Your task to perform on an android device: Is it going to rain tomorrow? Image 0: 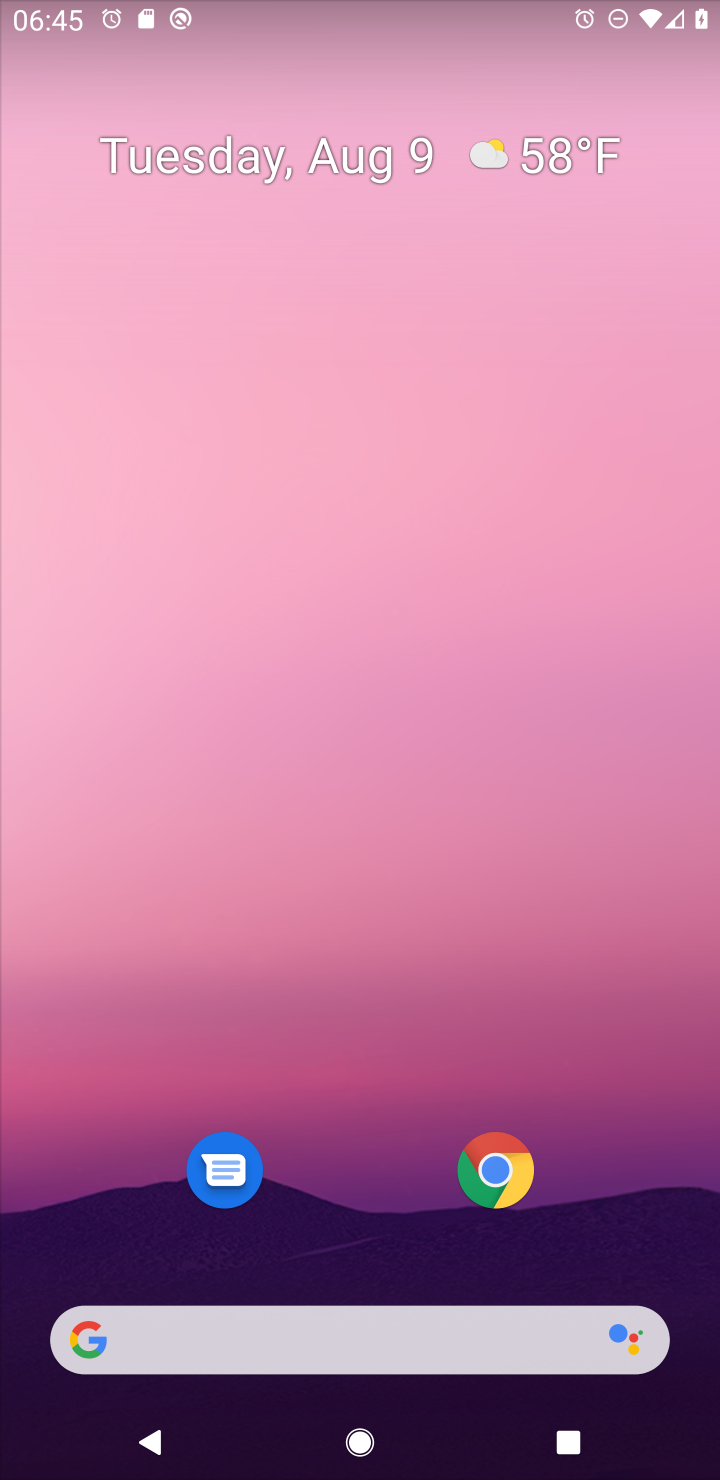
Step 0: press home button
Your task to perform on an android device: Is it going to rain tomorrow? Image 1: 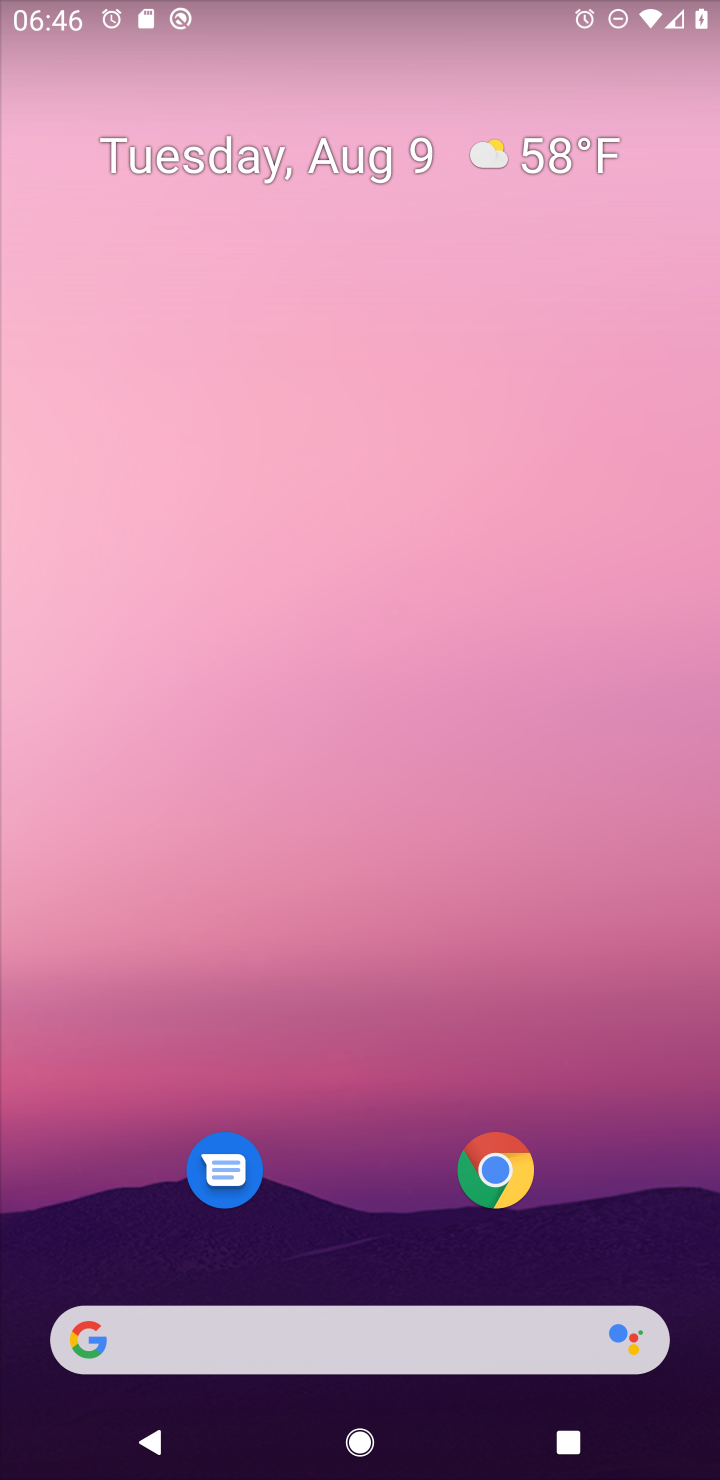
Step 1: click (96, 1343)
Your task to perform on an android device: Is it going to rain tomorrow? Image 2: 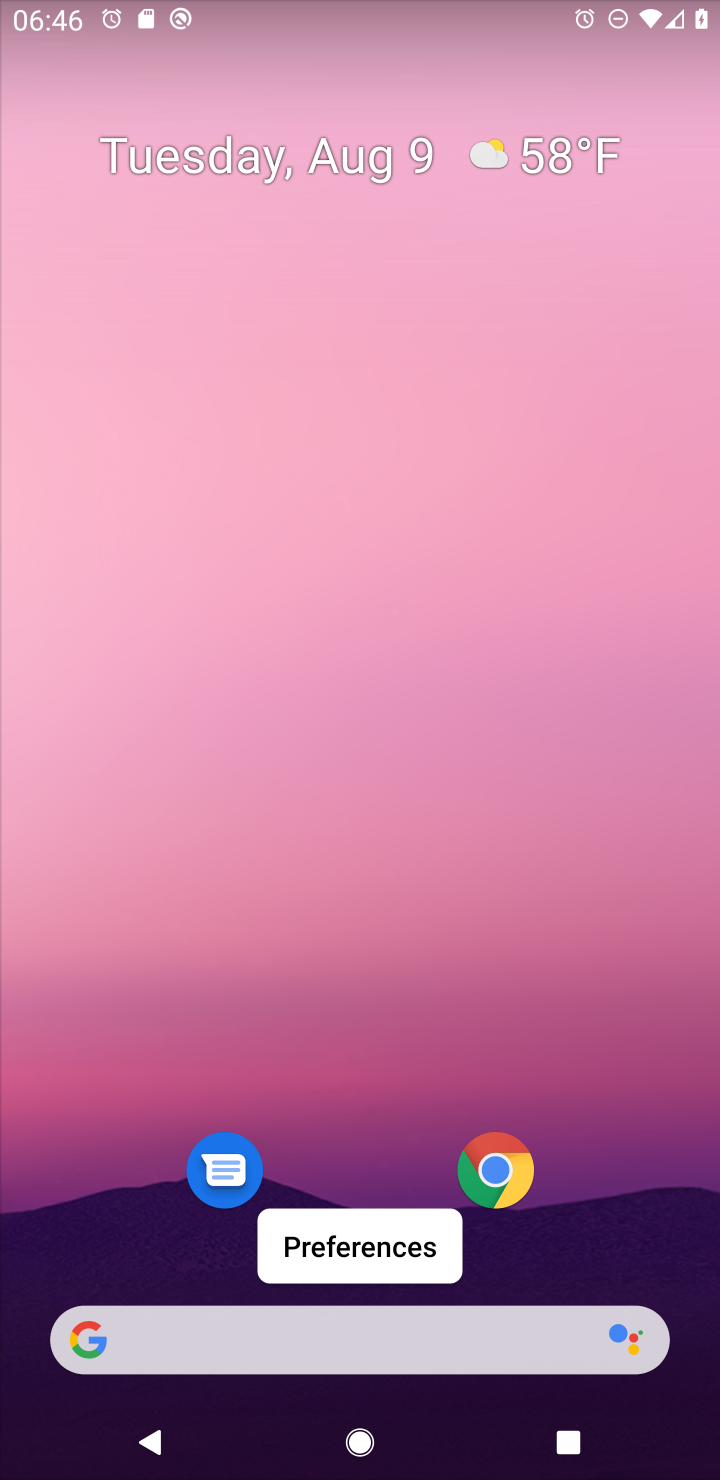
Step 2: type " rain tomorrow?"
Your task to perform on an android device: Is it going to rain tomorrow? Image 3: 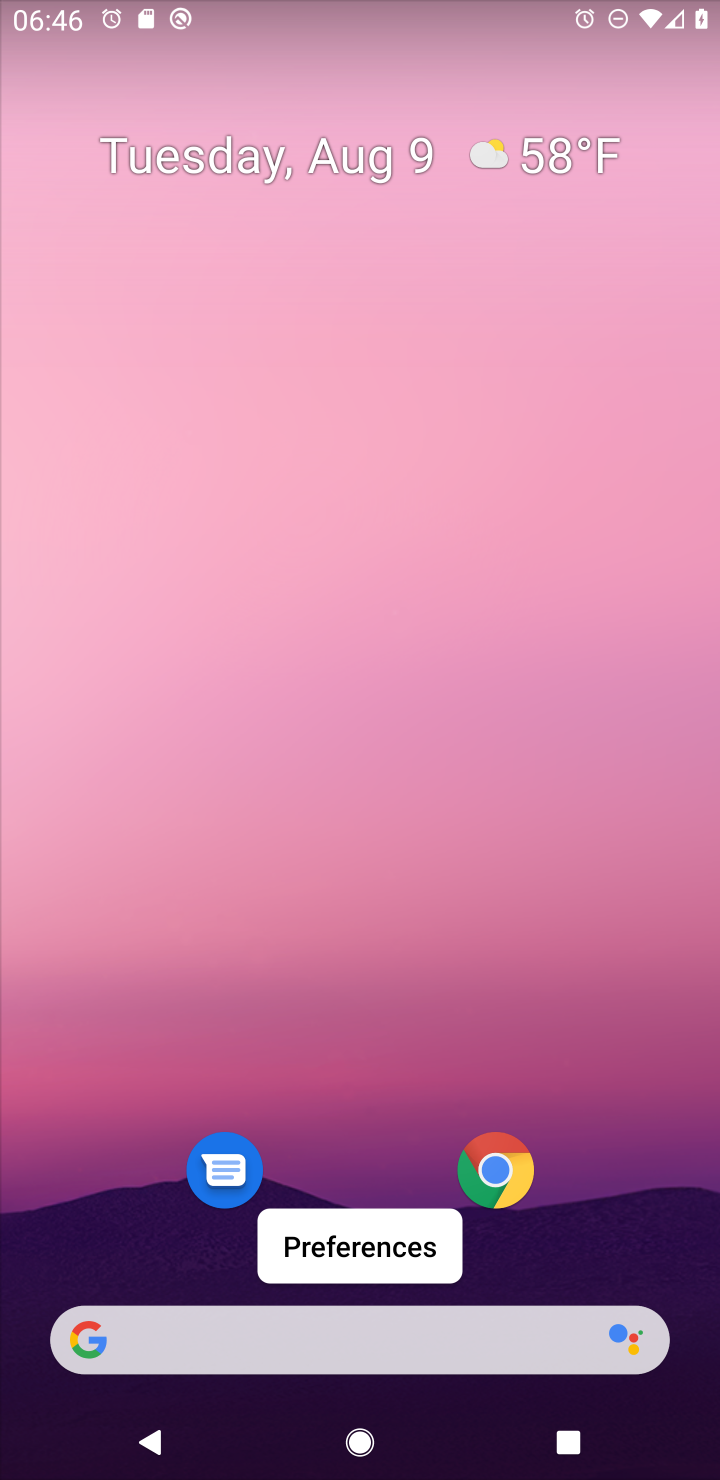
Step 3: click (91, 1332)
Your task to perform on an android device: Is it going to rain tomorrow? Image 4: 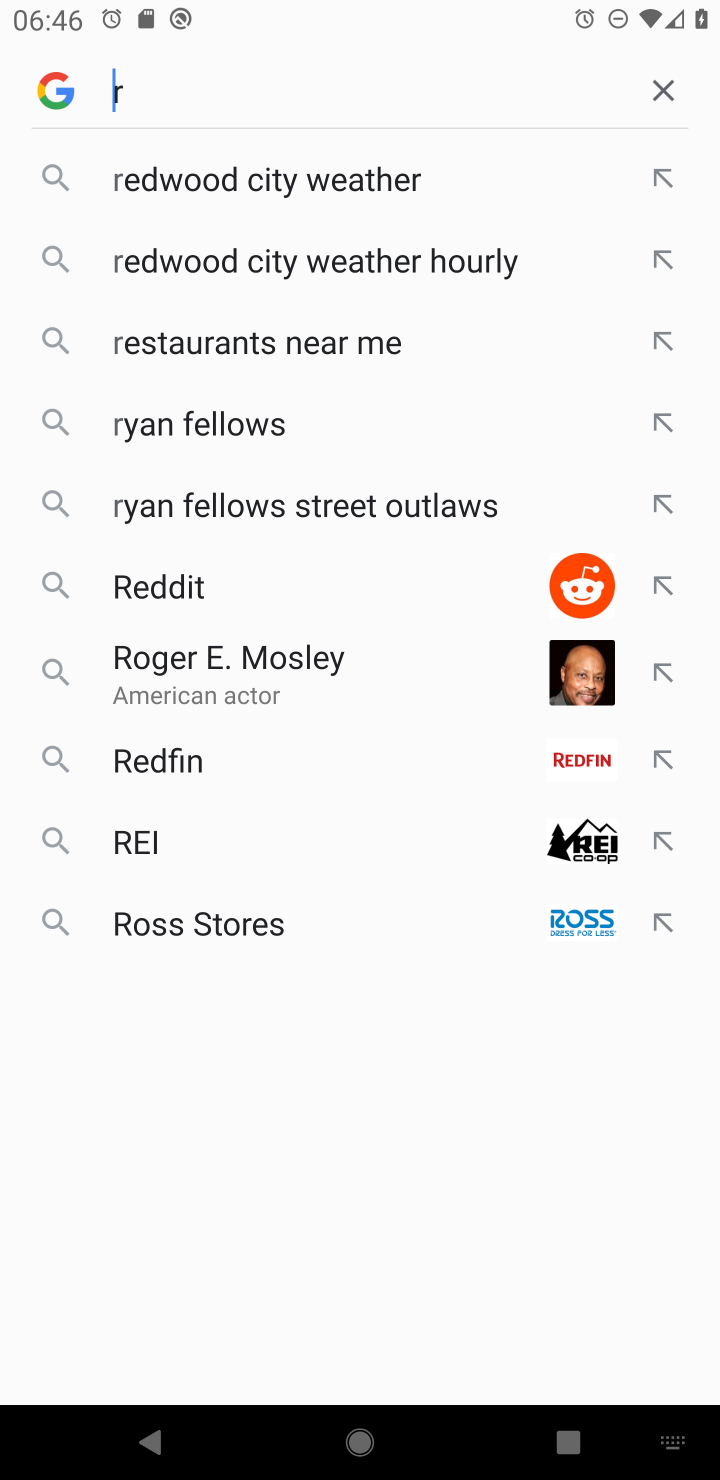
Step 4: click (676, 83)
Your task to perform on an android device: Is it going to rain tomorrow? Image 5: 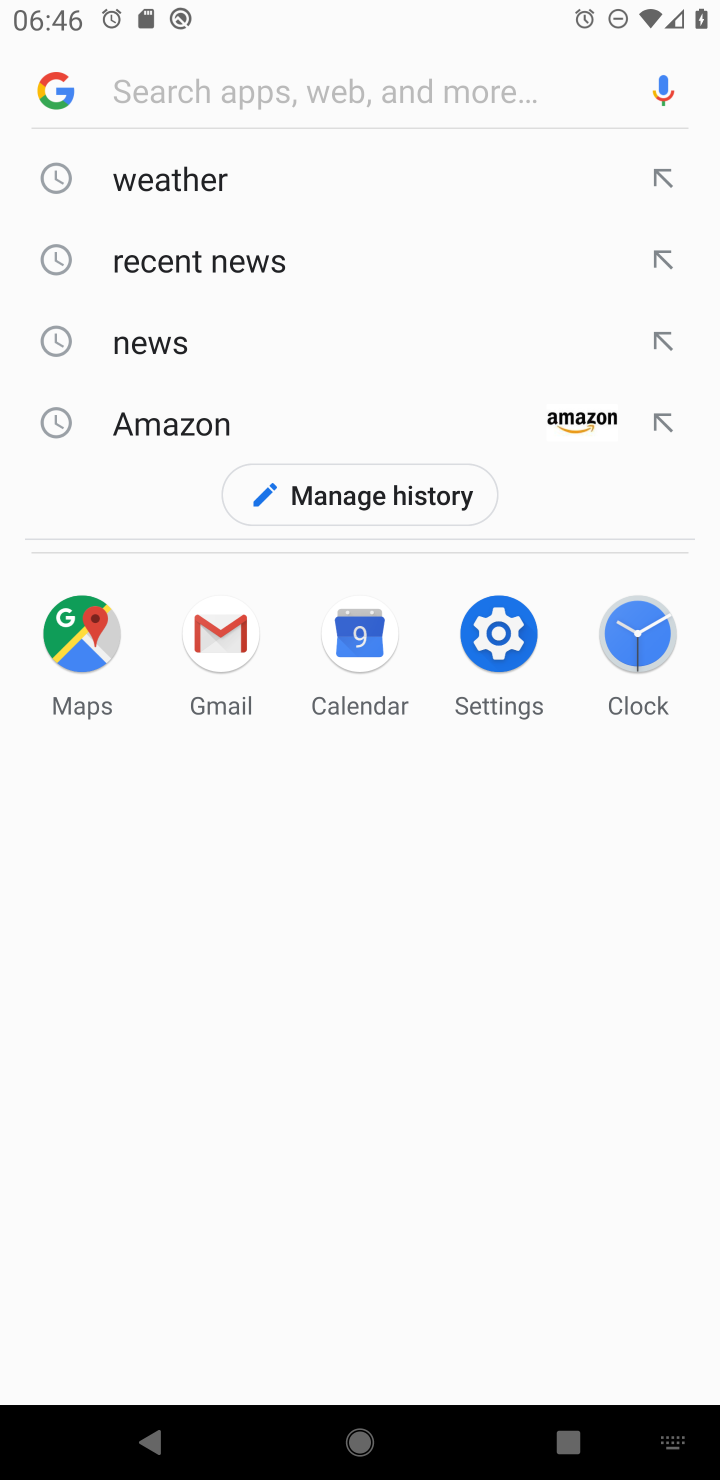
Step 5: press enter
Your task to perform on an android device: Is it going to rain tomorrow? Image 6: 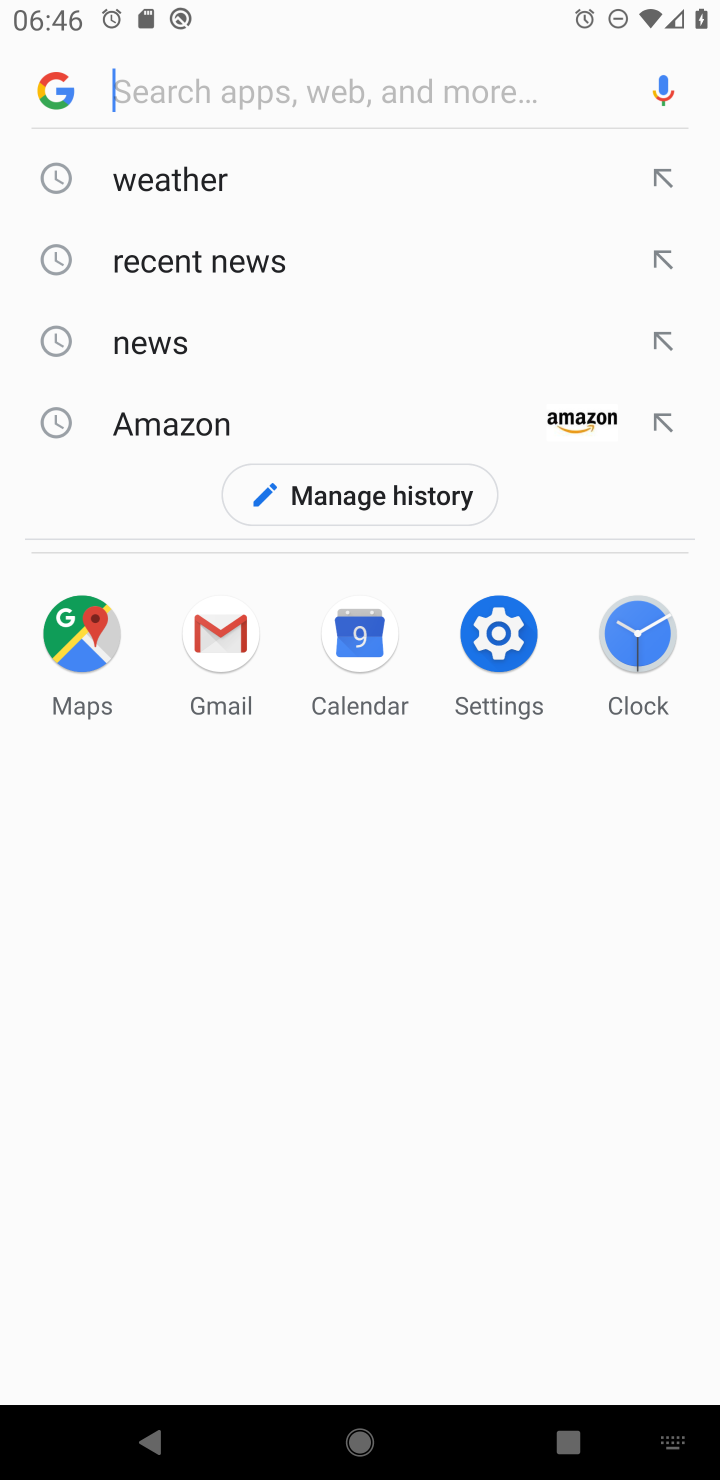
Step 6: type " rain tomorrow?"
Your task to perform on an android device: Is it going to rain tomorrow? Image 7: 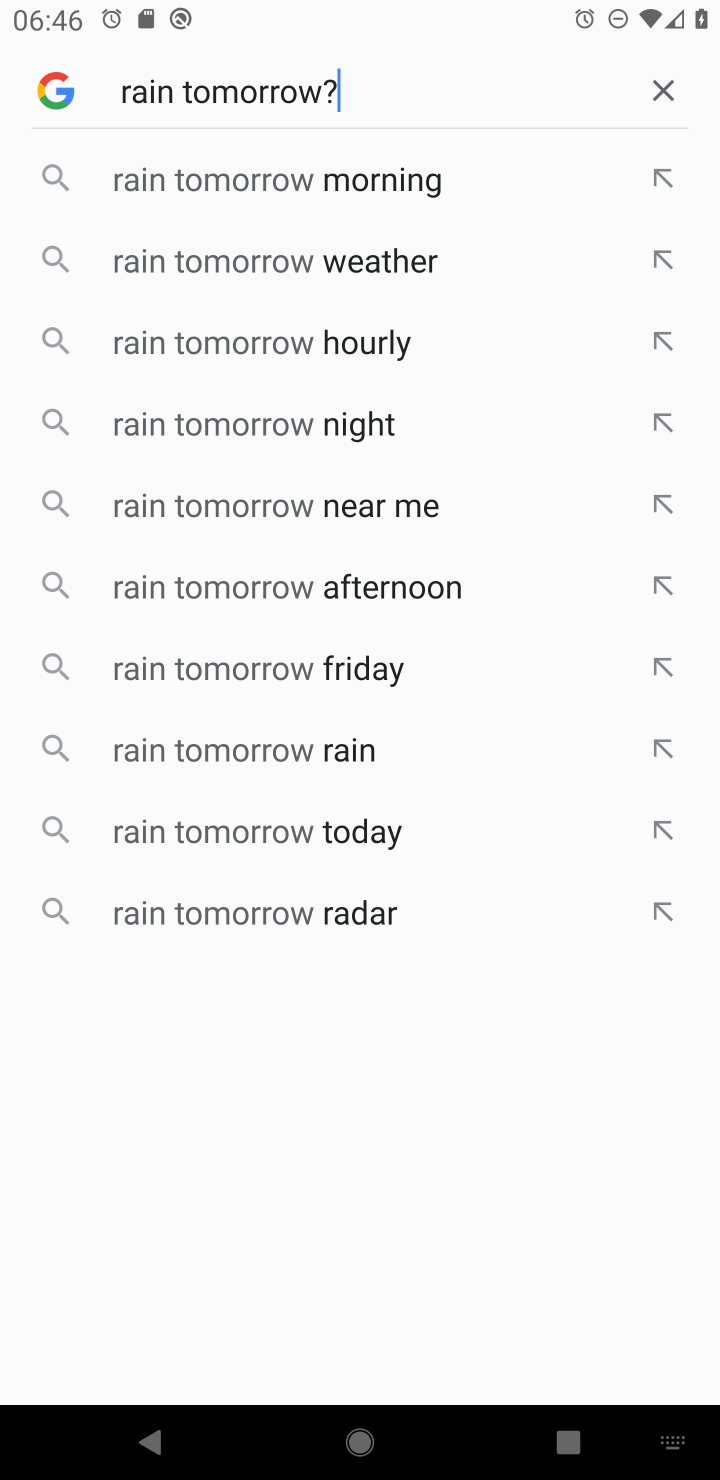
Step 7: press enter
Your task to perform on an android device: Is it going to rain tomorrow? Image 8: 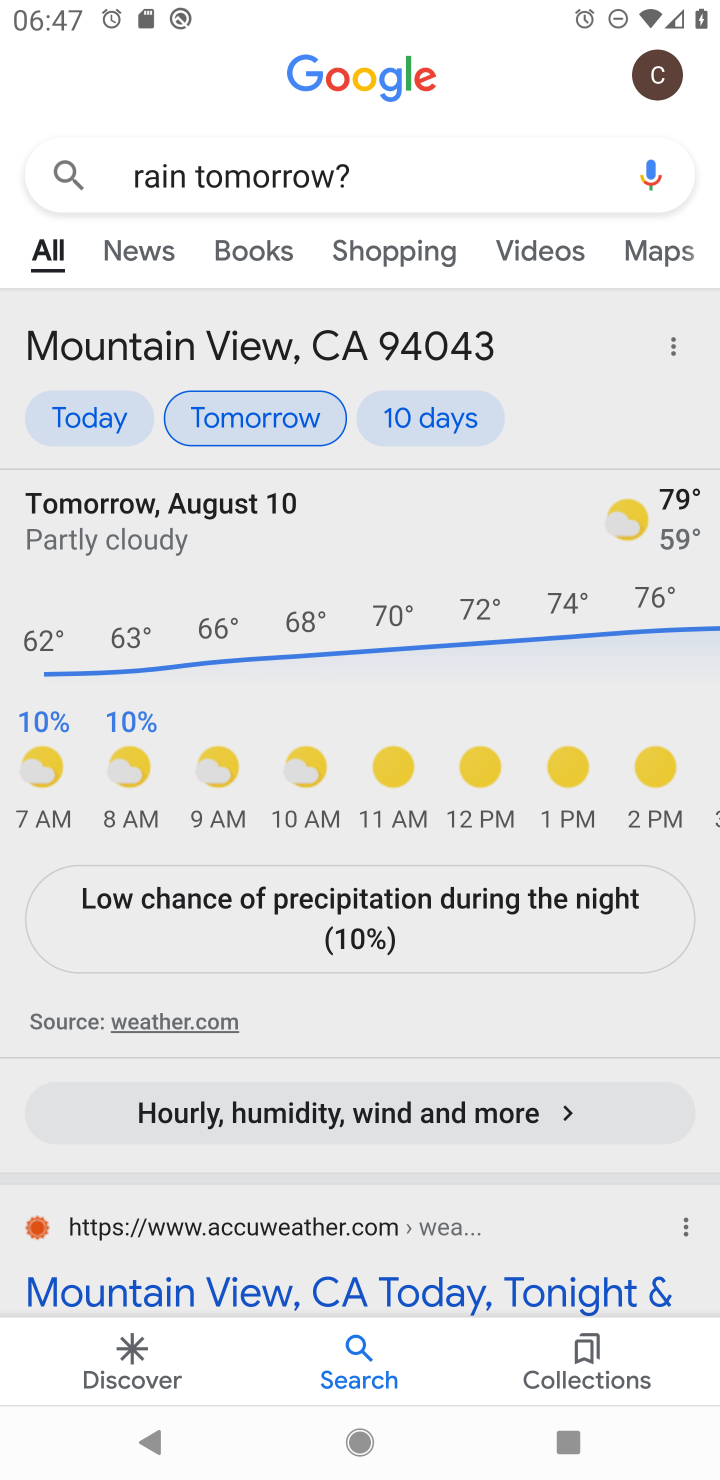
Step 8: task complete